Your task to perform on an android device: empty trash in google photos Image 0: 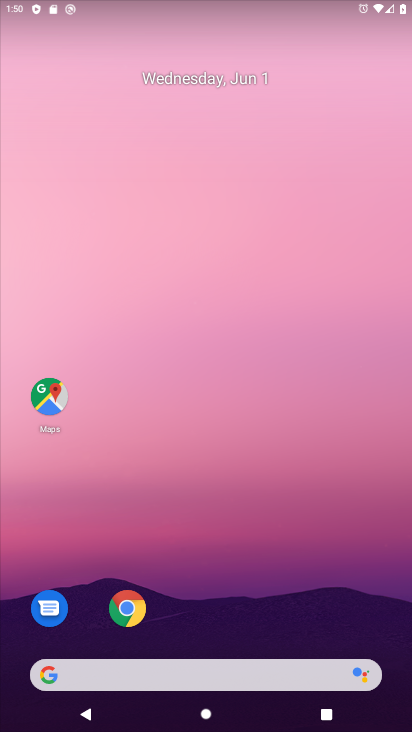
Step 0: drag from (209, 654) to (335, 45)
Your task to perform on an android device: empty trash in google photos Image 1: 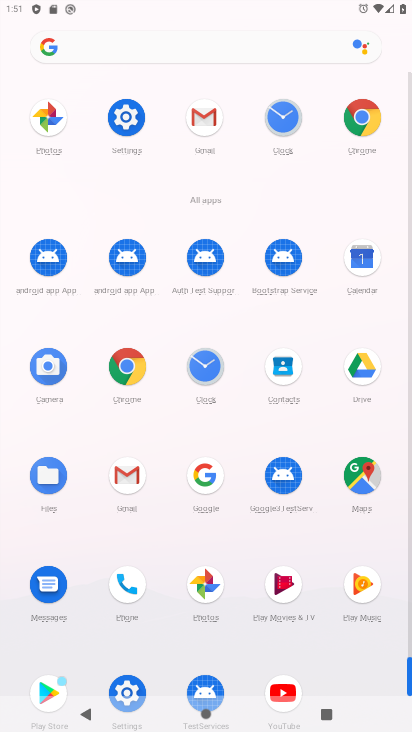
Step 1: click (210, 587)
Your task to perform on an android device: empty trash in google photos Image 2: 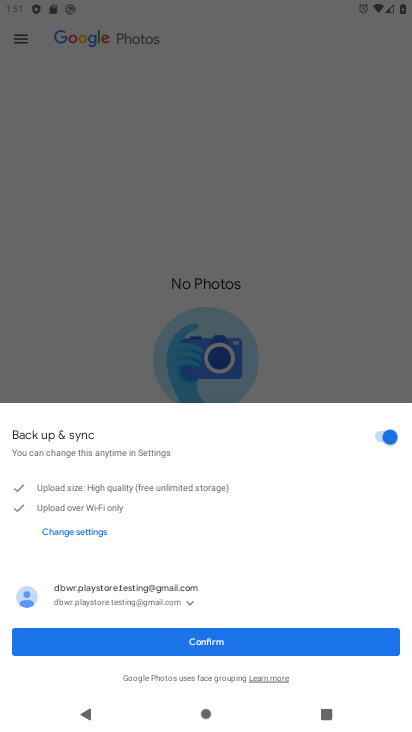
Step 2: click (210, 638)
Your task to perform on an android device: empty trash in google photos Image 3: 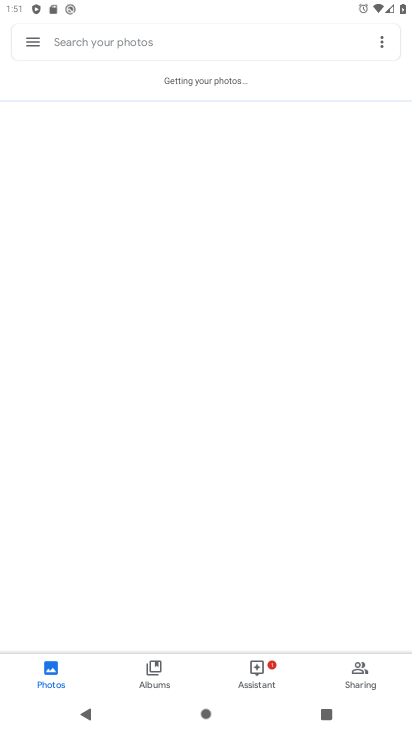
Step 3: click (44, 39)
Your task to perform on an android device: empty trash in google photos Image 4: 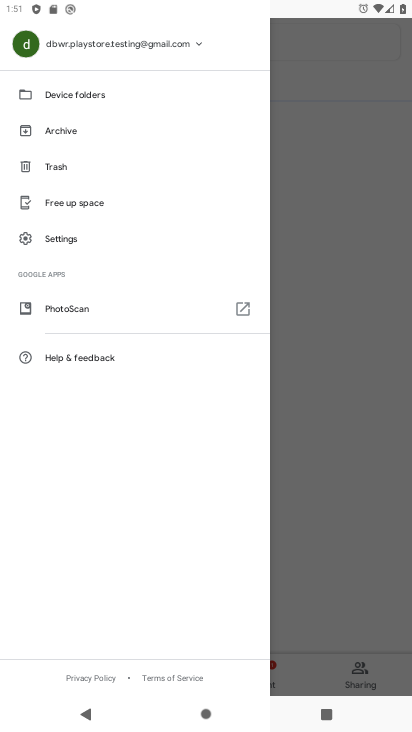
Step 4: click (162, 178)
Your task to perform on an android device: empty trash in google photos Image 5: 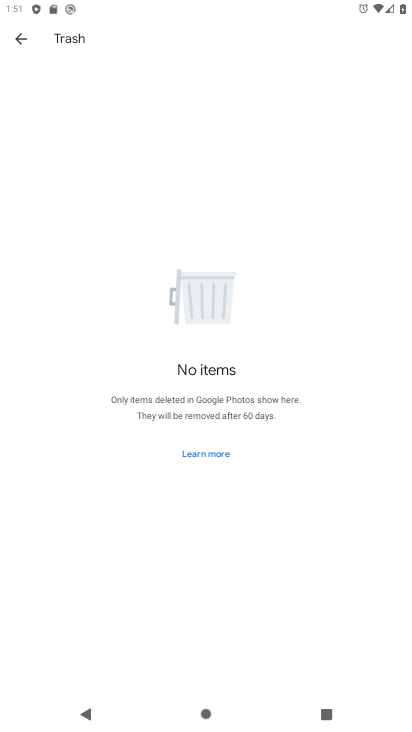
Step 5: task complete